Your task to perform on an android device: check storage Image 0: 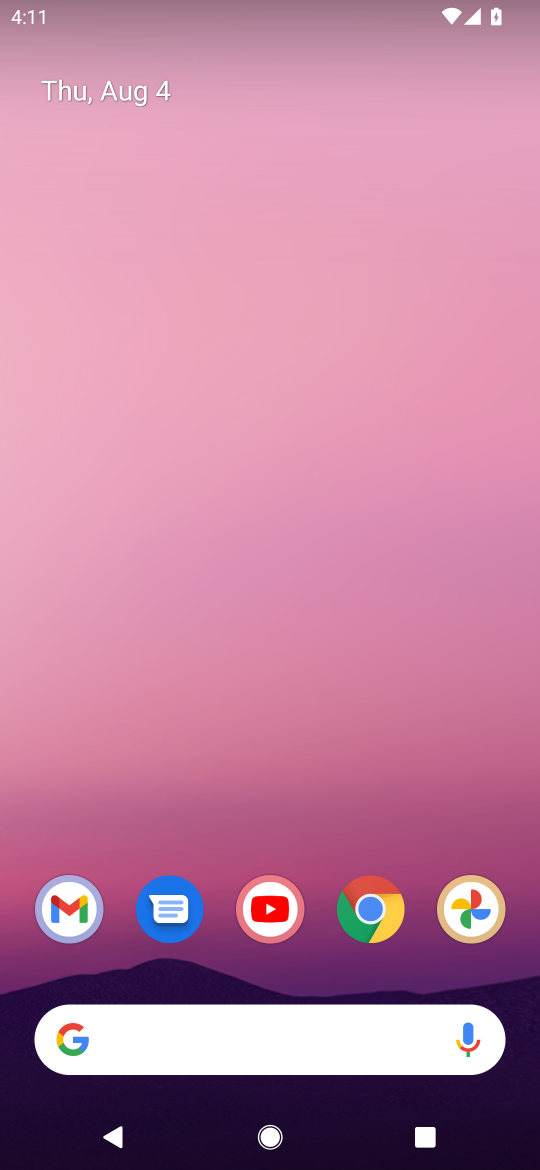
Step 0: press home button
Your task to perform on an android device: check storage Image 1: 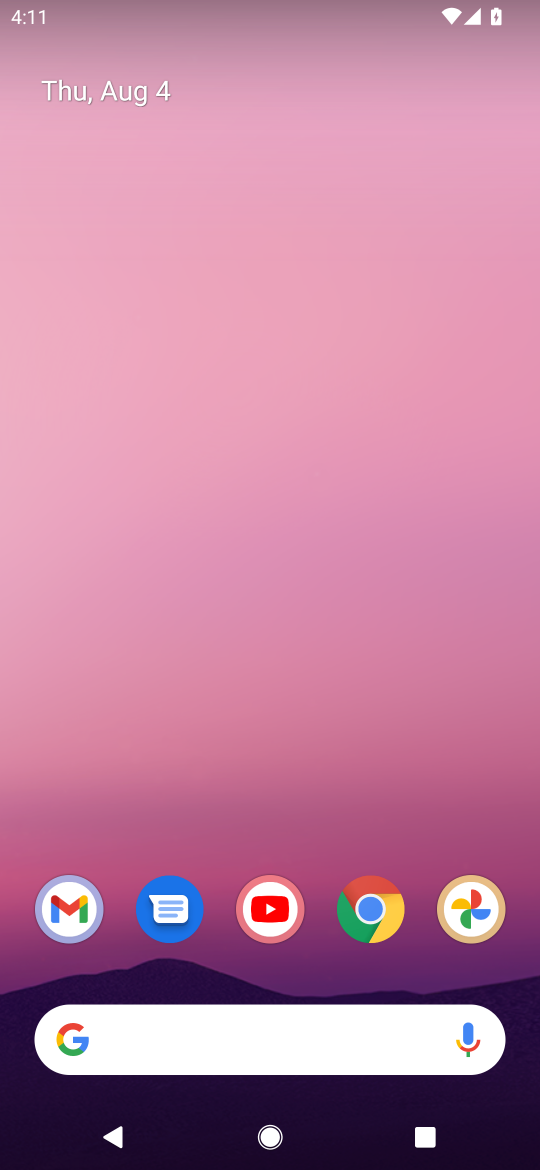
Step 1: drag from (444, 713) to (386, 174)
Your task to perform on an android device: check storage Image 2: 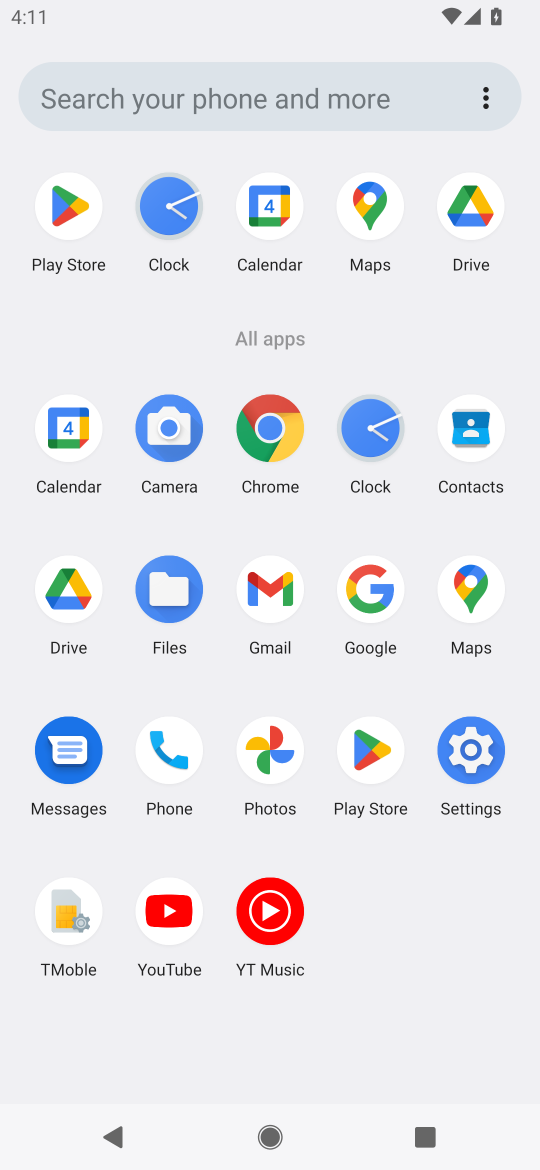
Step 2: click (472, 756)
Your task to perform on an android device: check storage Image 3: 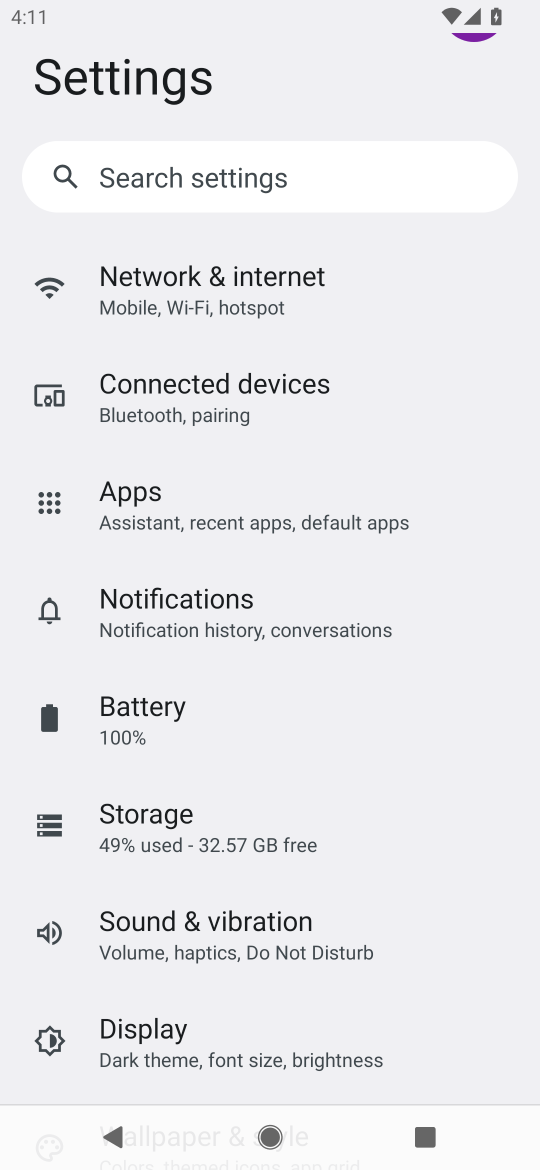
Step 3: click (189, 839)
Your task to perform on an android device: check storage Image 4: 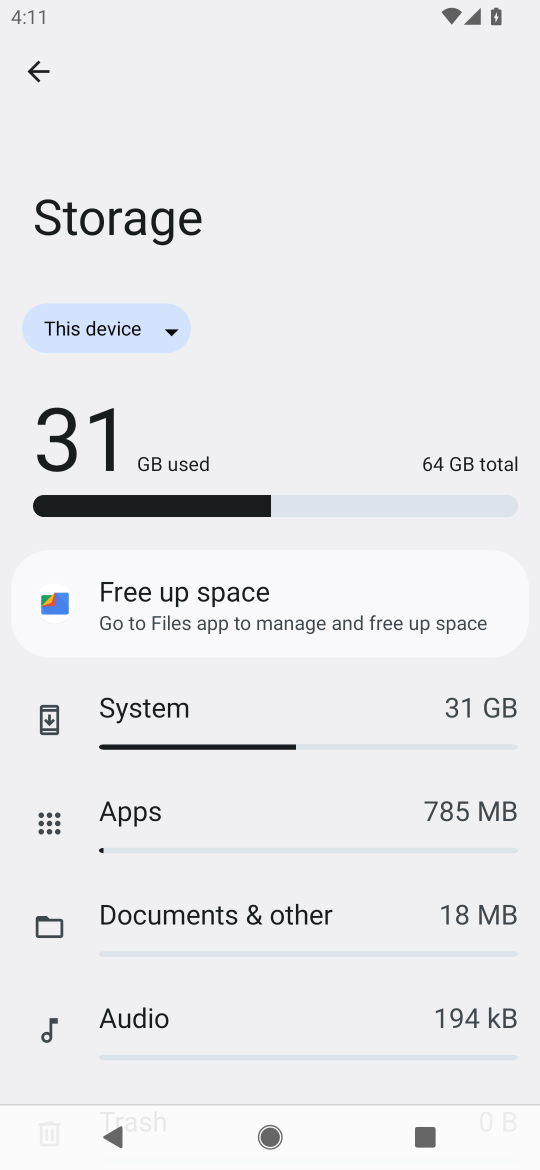
Step 4: task complete